Your task to perform on an android device: What's a good restaurant in Los Angeles? Image 0: 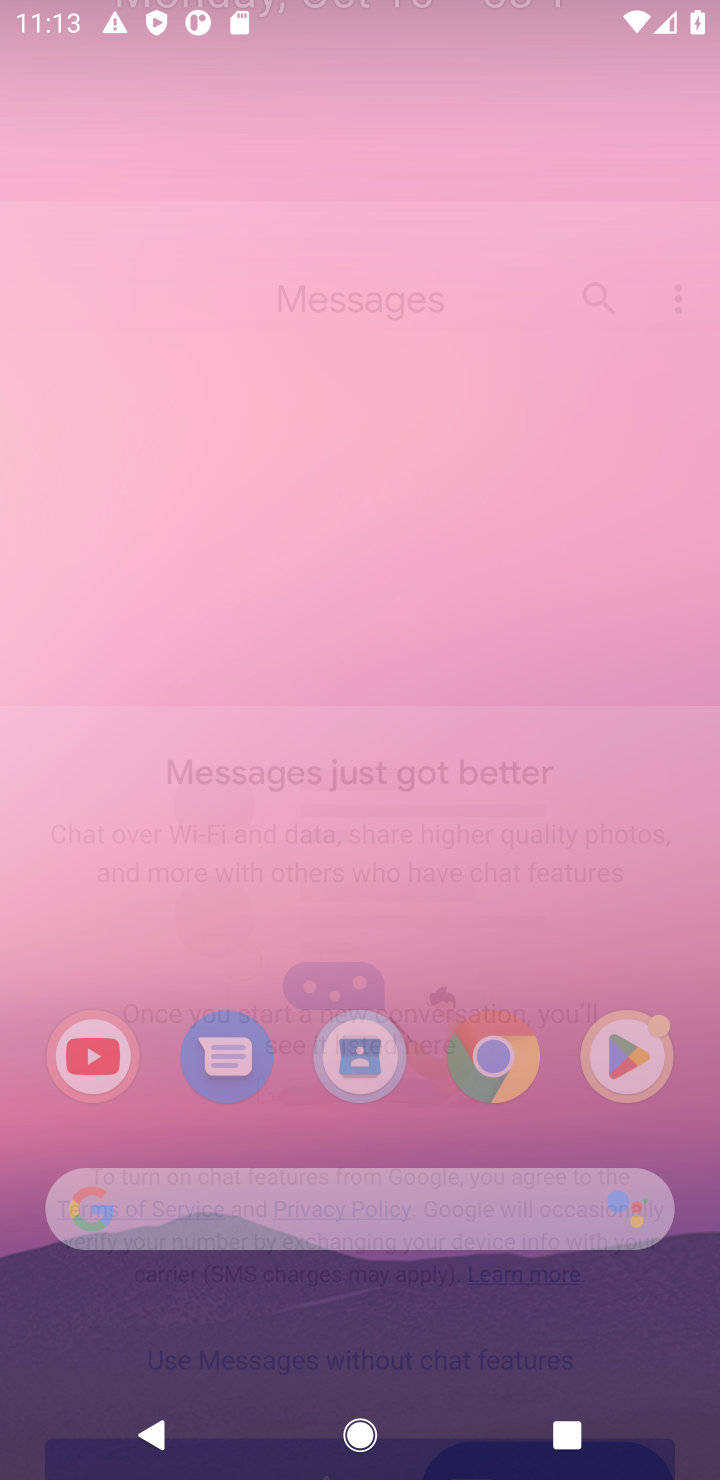
Step 0: click (604, 1163)
Your task to perform on an android device: What's a good restaurant in Los Angeles? Image 1: 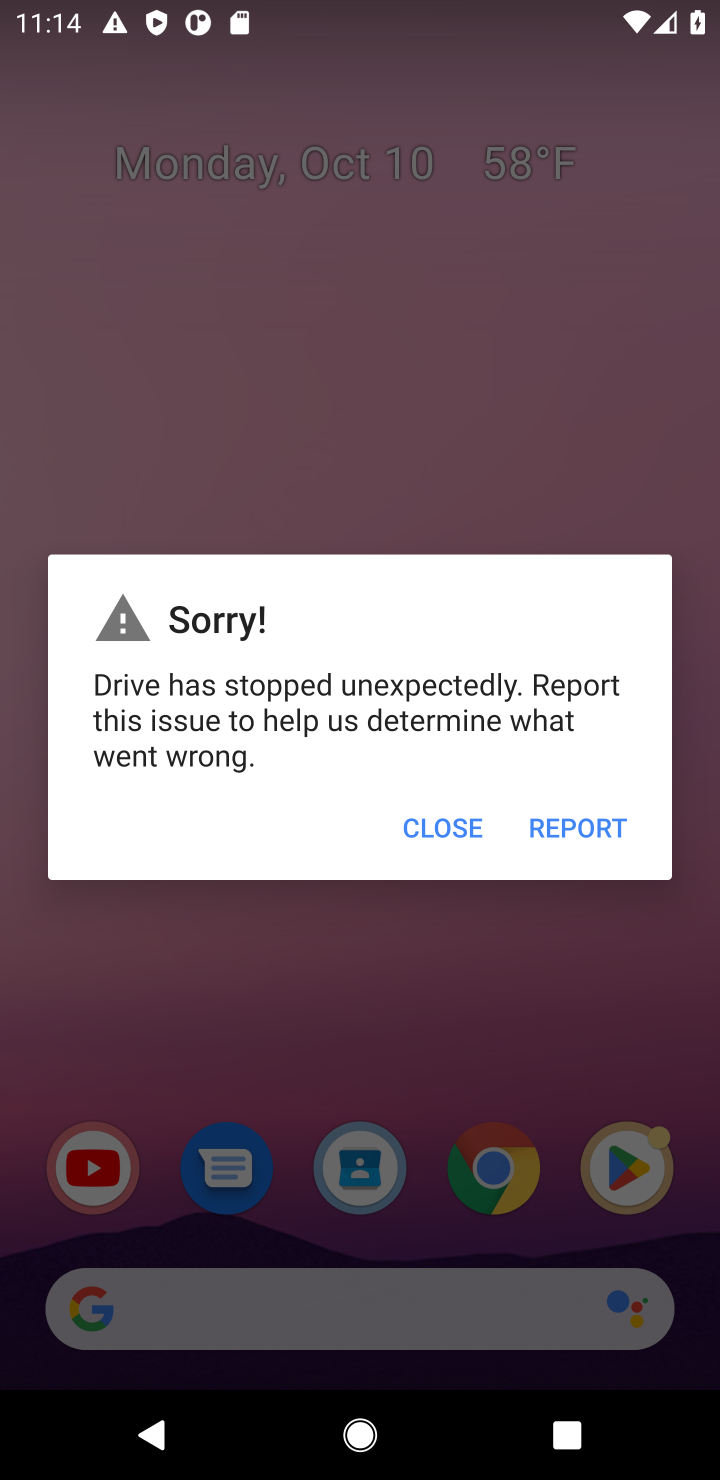
Step 1: click (437, 809)
Your task to perform on an android device: What's a good restaurant in Los Angeles? Image 2: 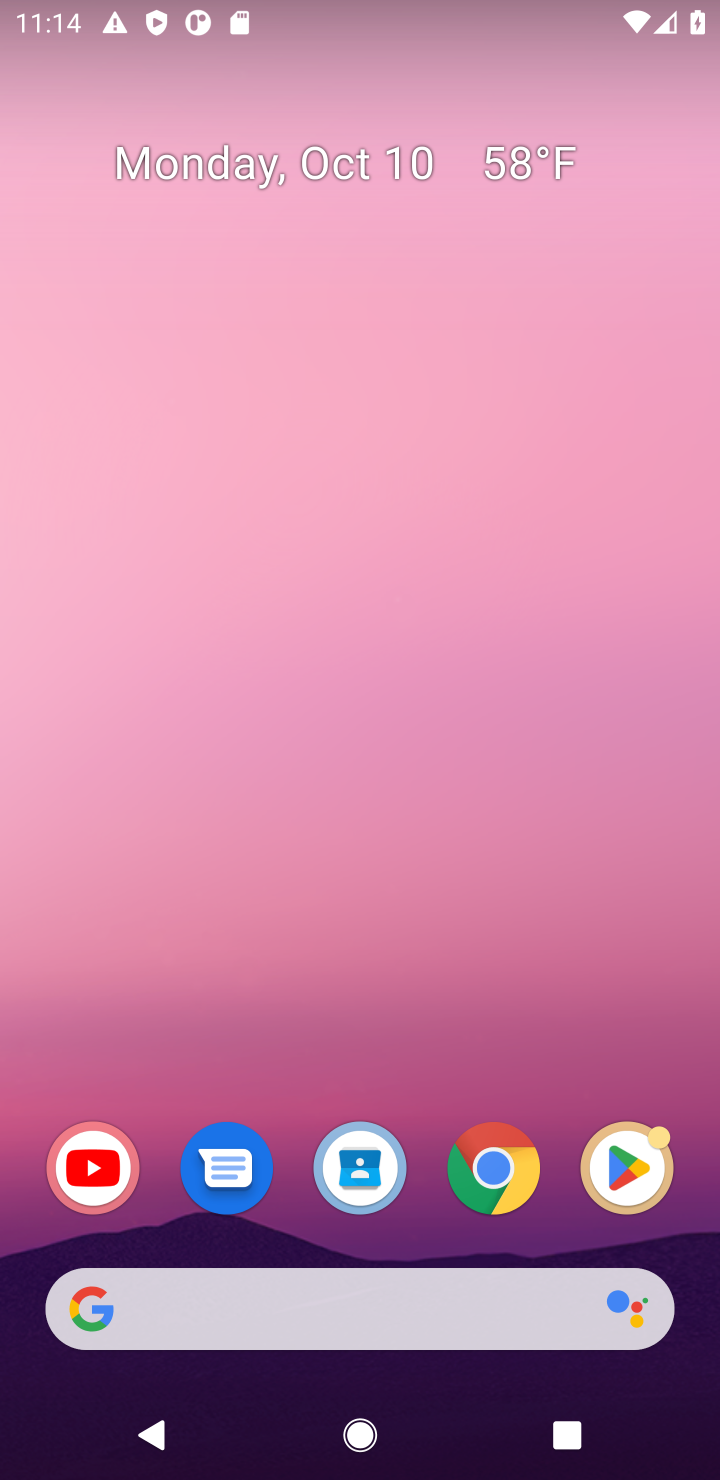
Step 2: click (305, 1326)
Your task to perform on an android device: What's a good restaurant in Los Angeles? Image 3: 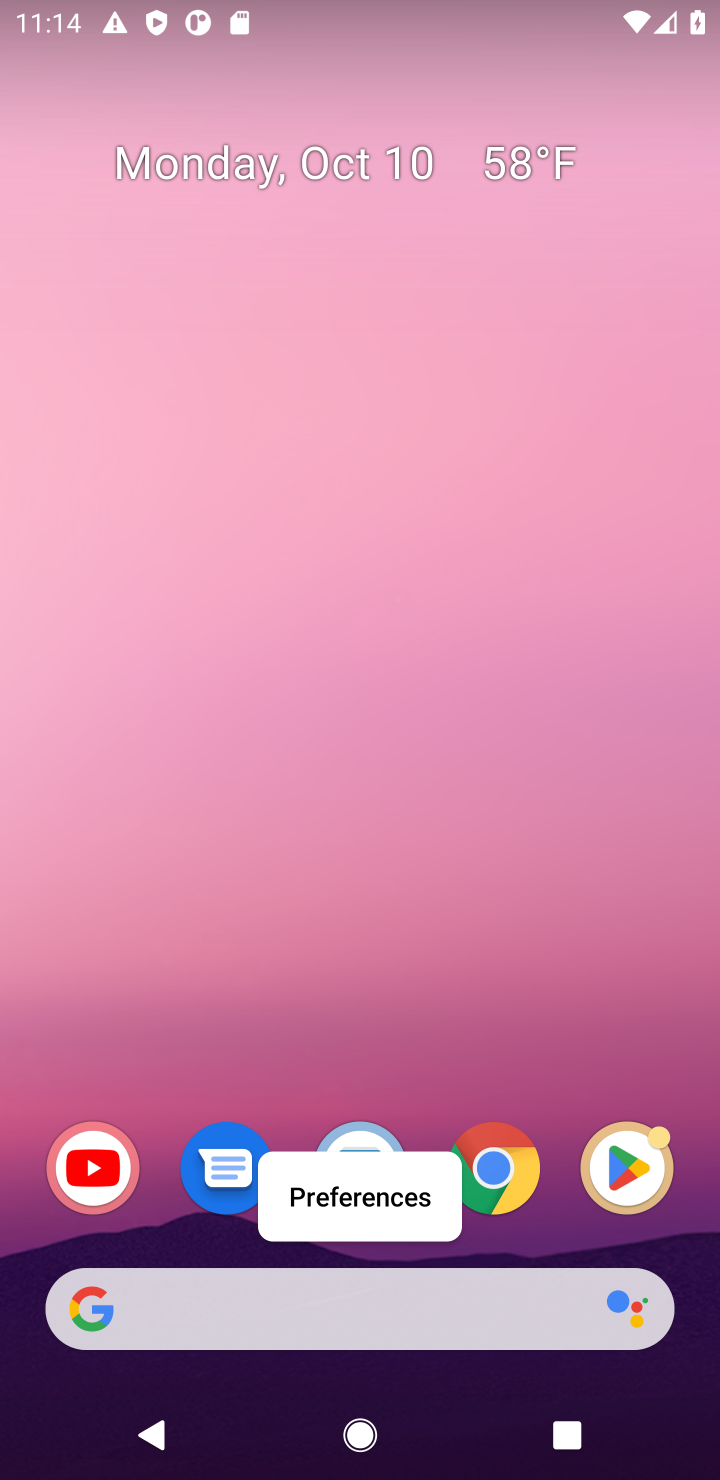
Step 3: click (221, 1303)
Your task to perform on an android device: What's a good restaurant in Los Angeles? Image 4: 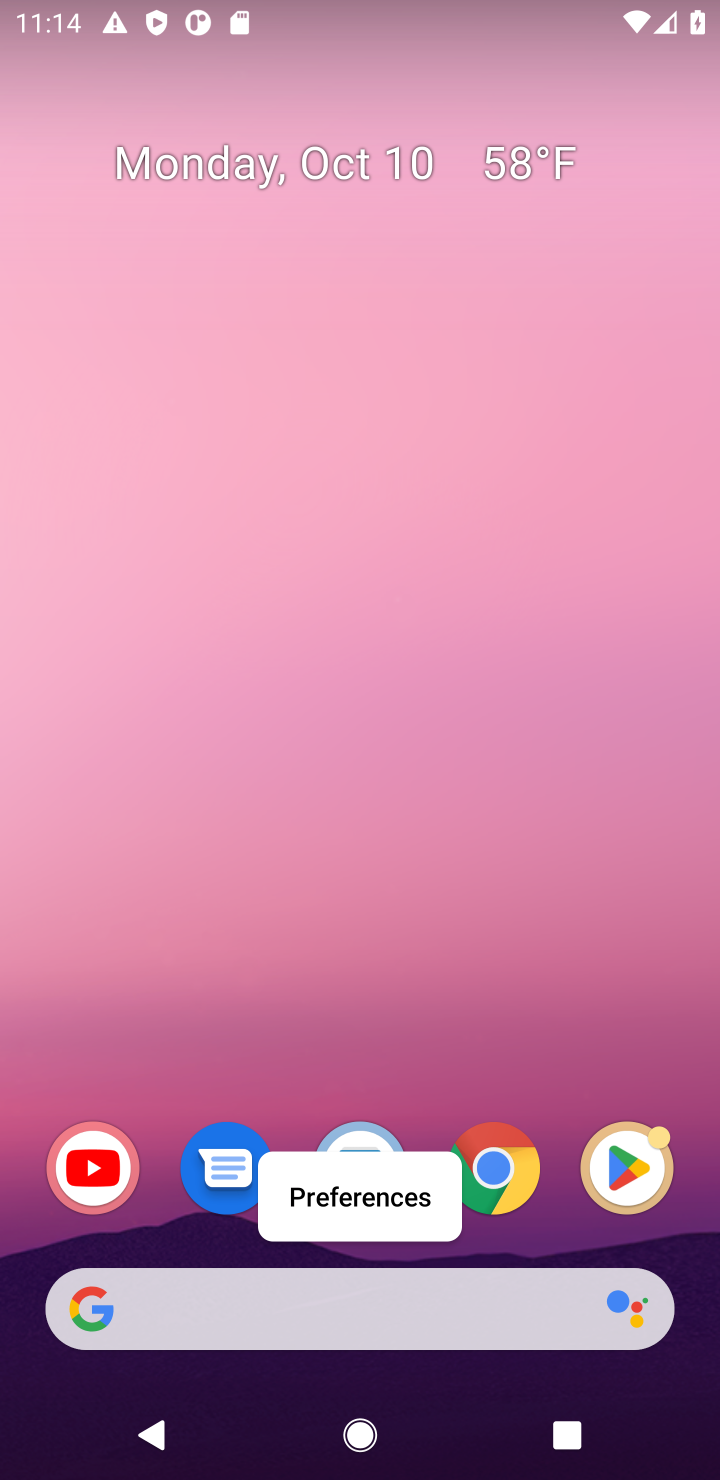
Step 4: click (221, 1303)
Your task to perform on an android device: What's a good restaurant in Los Angeles? Image 5: 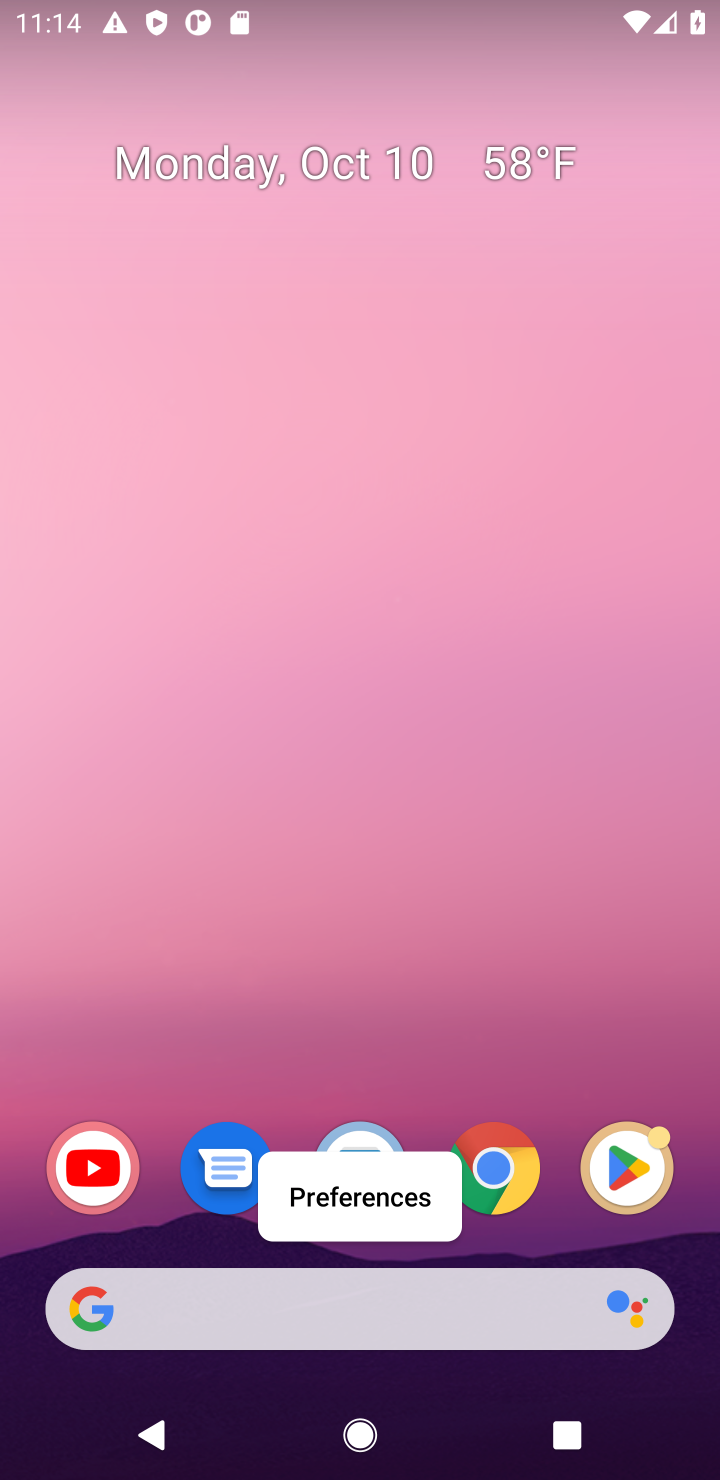
Step 5: click (221, 1303)
Your task to perform on an android device: What's a good restaurant in Los Angeles? Image 6: 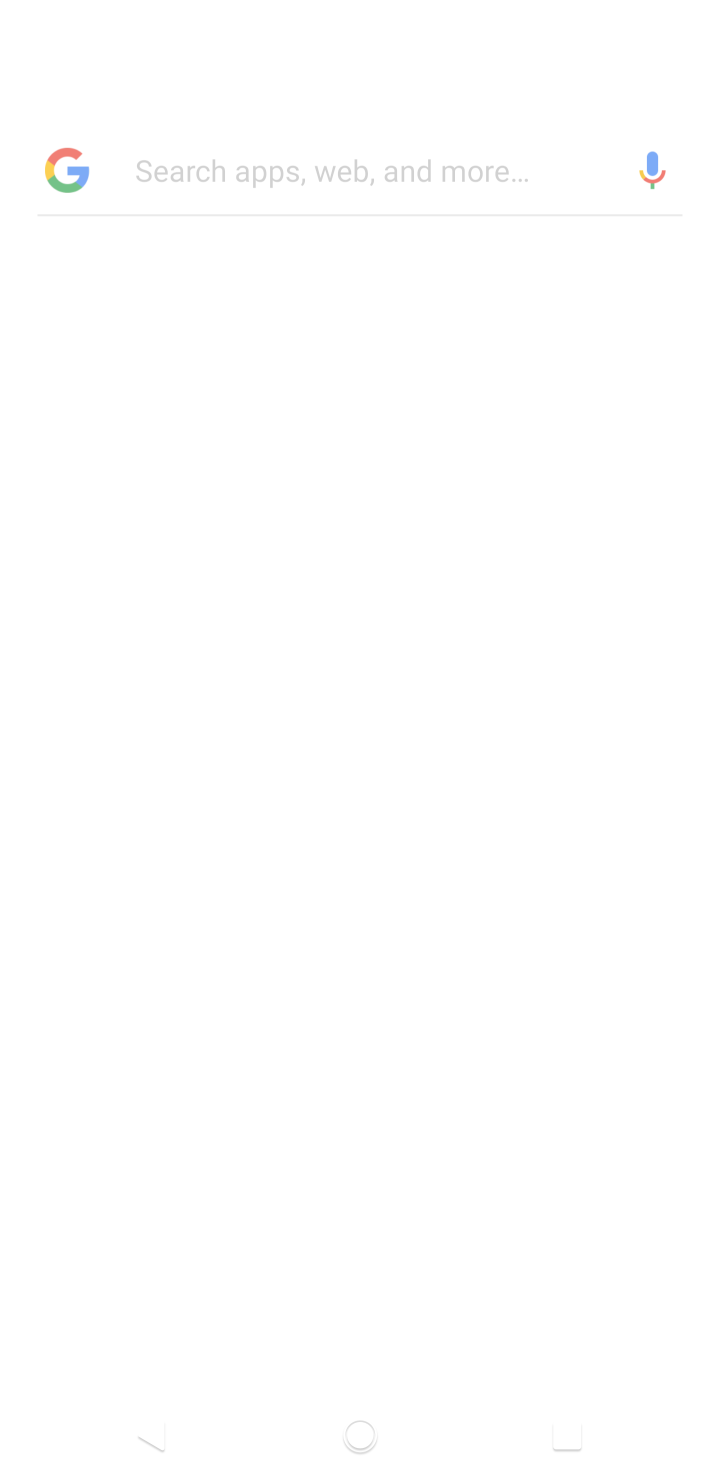
Step 6: click (327, 1318)
Your task to perform on an android device: What's a good restaurant in Los Angeles? Image 7: 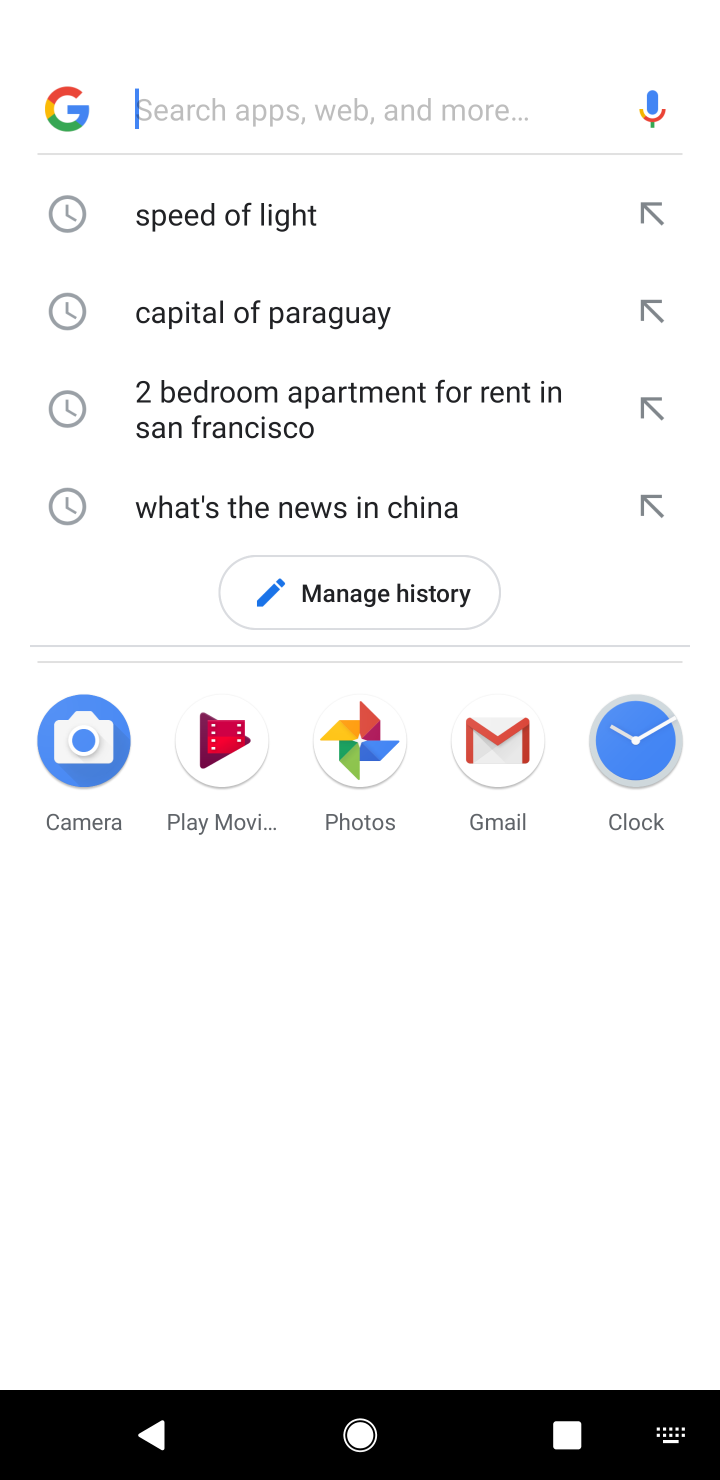
Step 7: type "good restaurant in Los Angeles"
Your task to perform on an android device: What's a good restaurant in Los Angeles? Image 8: 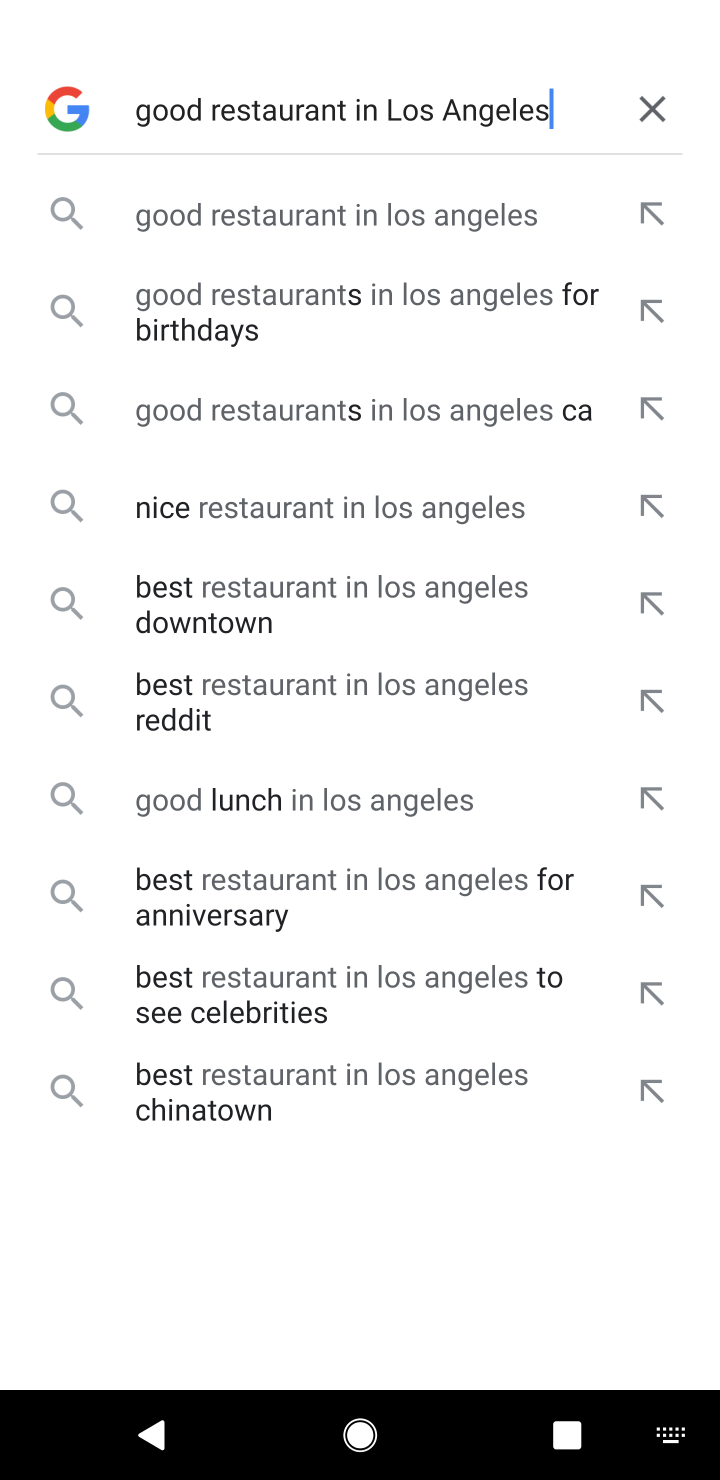
Step 8: click (406, 204)
Your task to perform on an android device: What's a good restaurant in Los Angeles? Image 9: 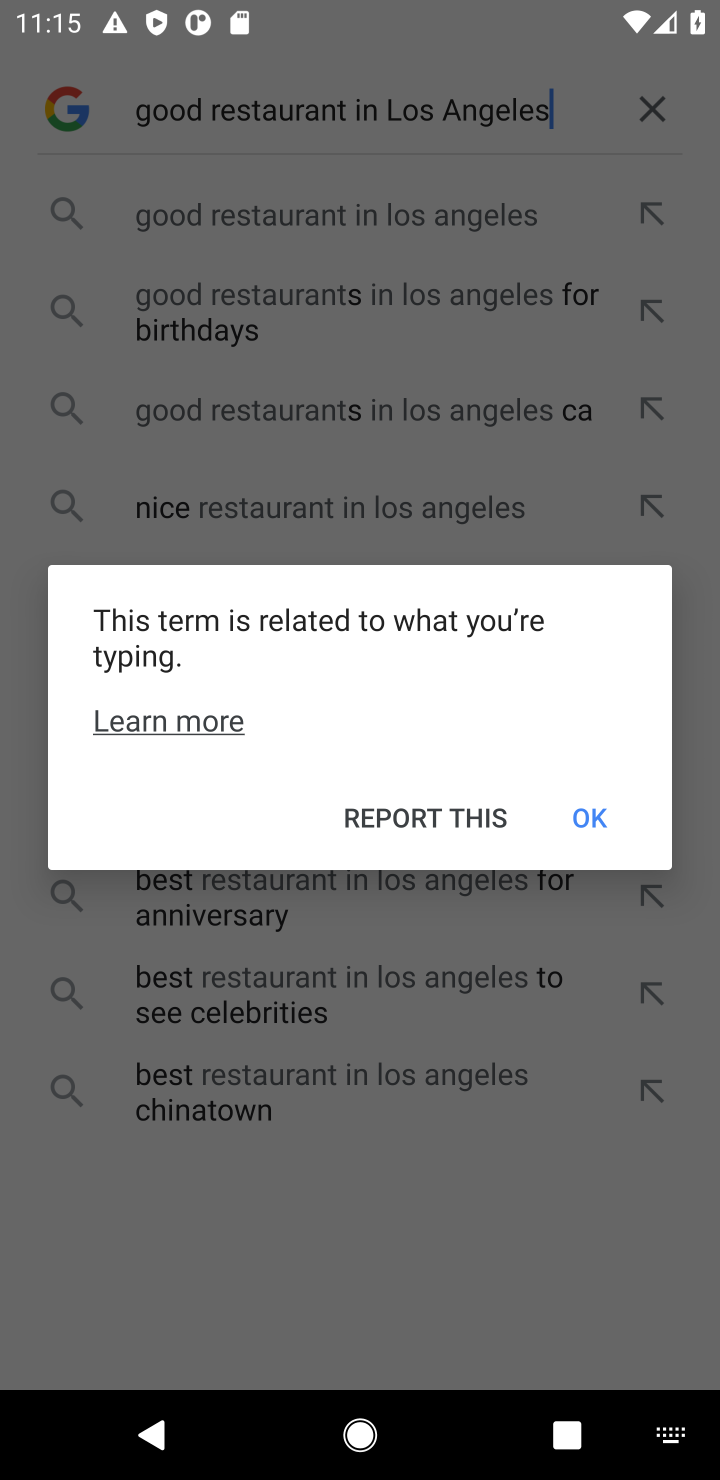
Step 9: click (564, 803)
Your task to perform on an android device: What's a good restaurant in Los Angeles? Image 10: 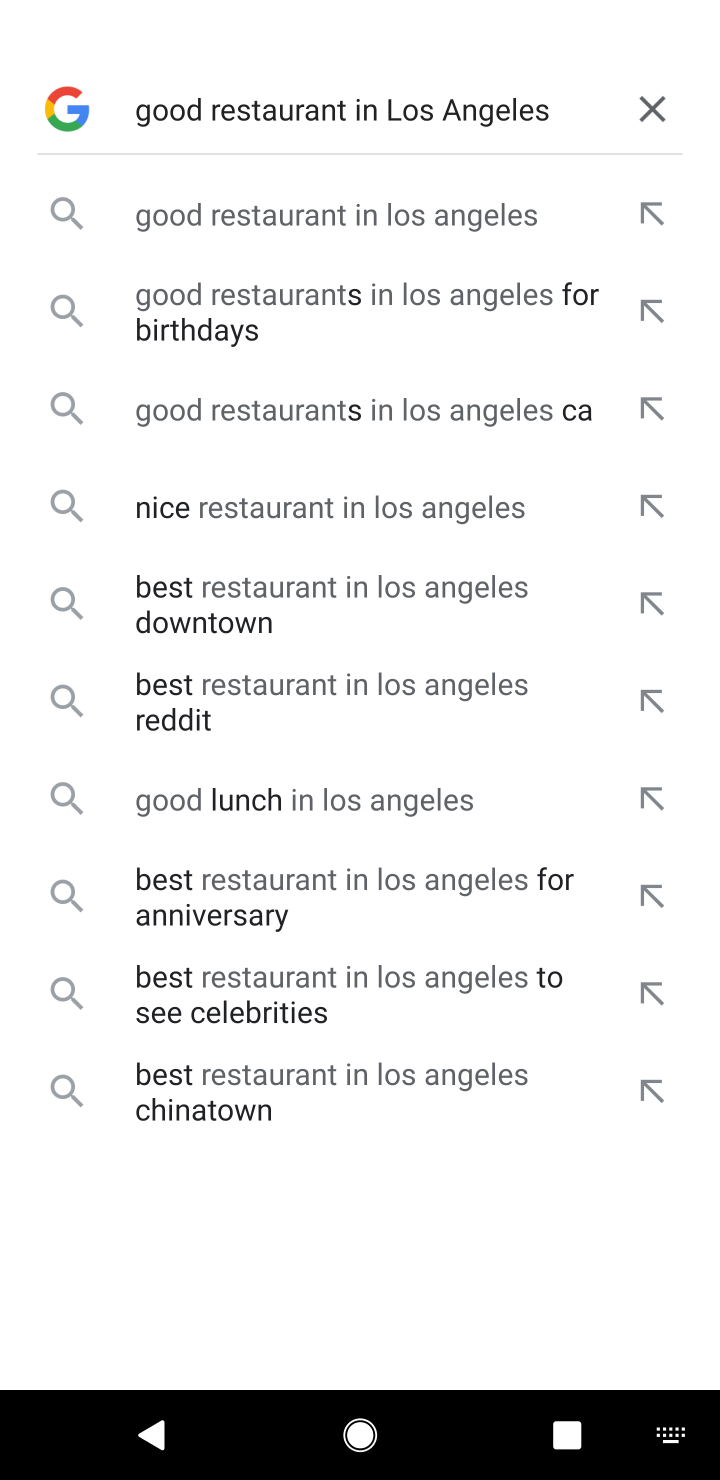
Step 10: click (144, 217)
Your task to perform on an android device: What's a good restaurant in Los Angeles? Image 11: 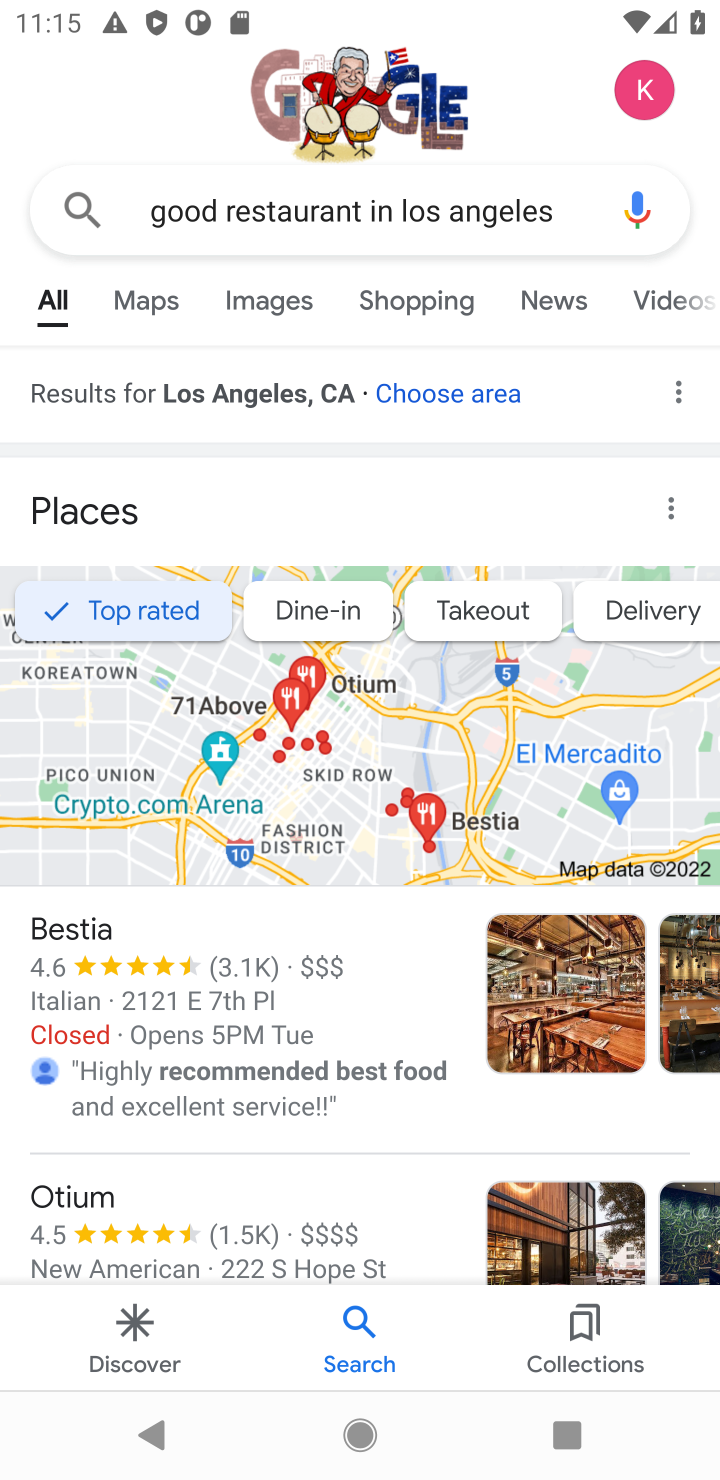
Step 11: task complete